Your task to perform on an android device: clear history in the chrome app Image 0: 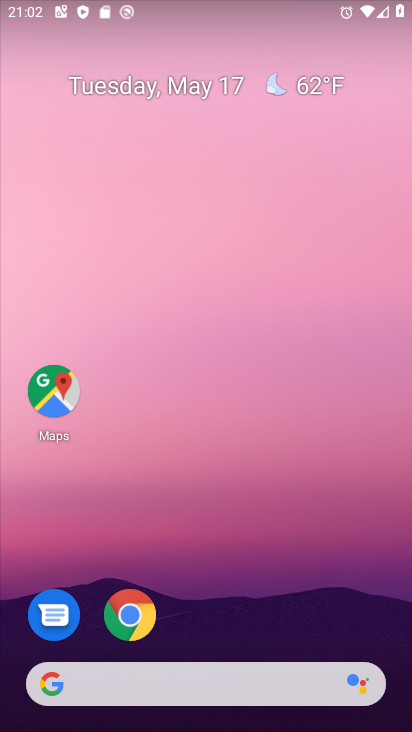
Step 0: click (124, 616)
Your task to perform on an android device: clear history in the chrome app Image 1: 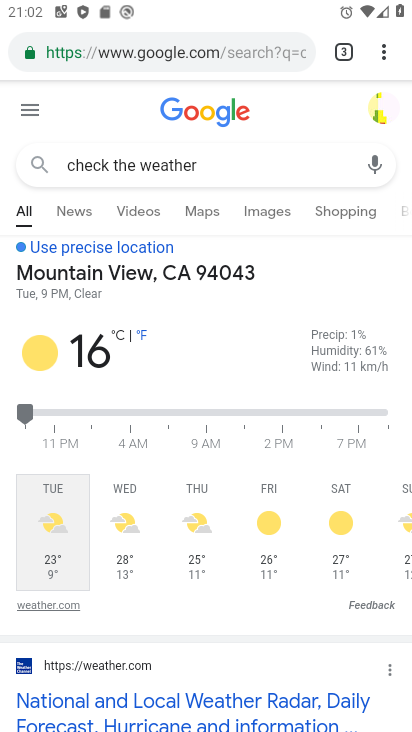
Step 1: drag from (388, 50) to (247, 303)
Your task to perform on an android device: clear history in the chrome app Image 2: 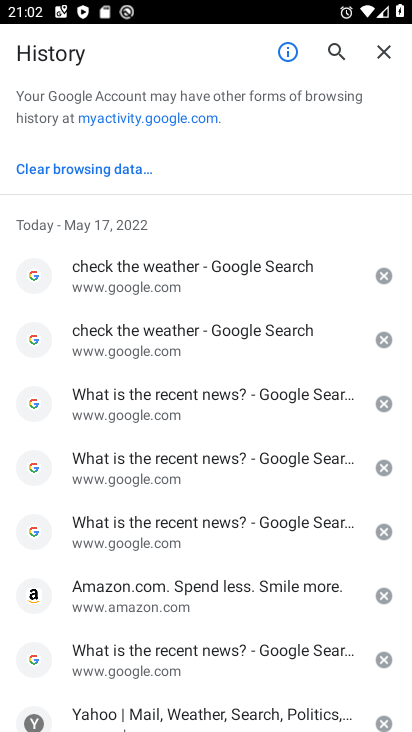
Step 2: click (46, 281)
Your task to perform on an android device: clear history in the chrome app Image 3: 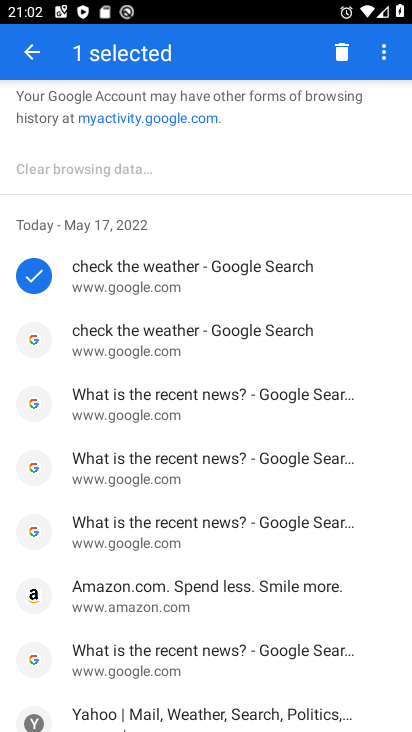
Step 3: click (37, 338)
Your task to perform on an android device: clear history in the chrome app Image 4: 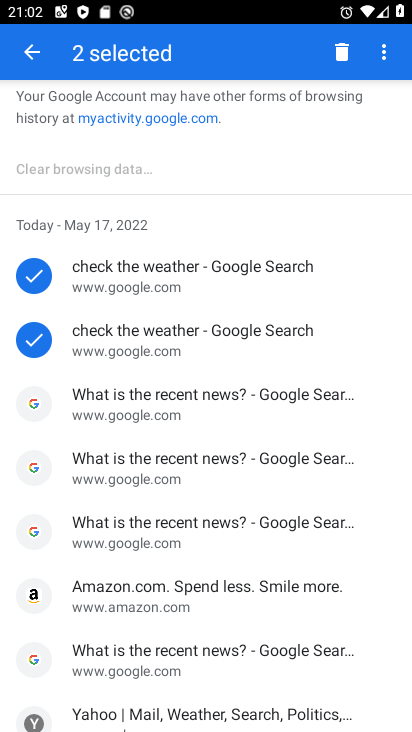
Step 4: click (37, 408)
Your task to perform on an android device: clear history in the chrome app Image 5: 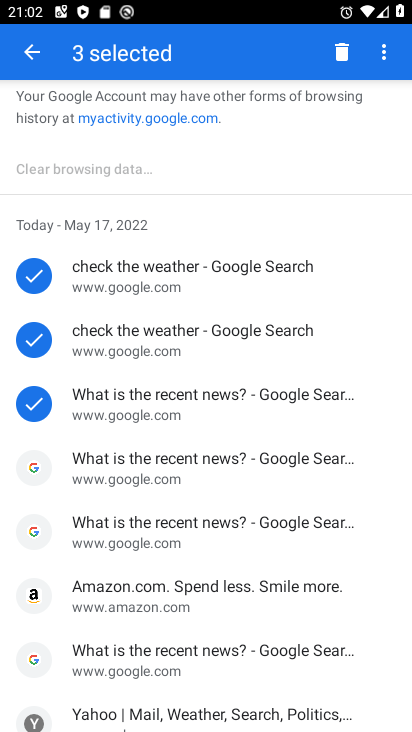
Step 5: click (37, 473)
Your task to perform on an android device: clear history in the chrome app Image 6: 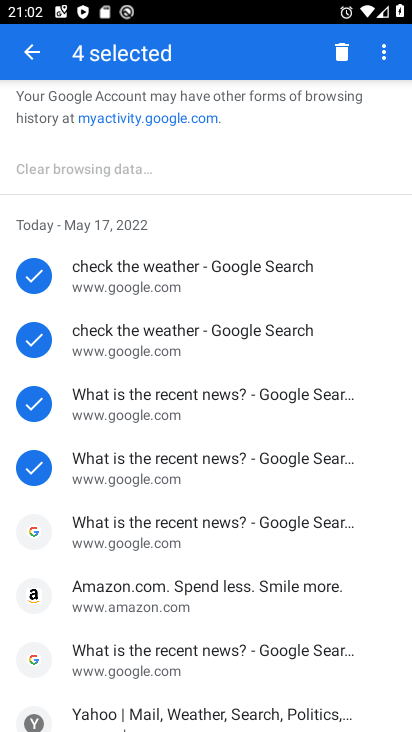
Step 6: click (30, 532)
Your task to perform on an android device: clear history in the chrome app Image 7: 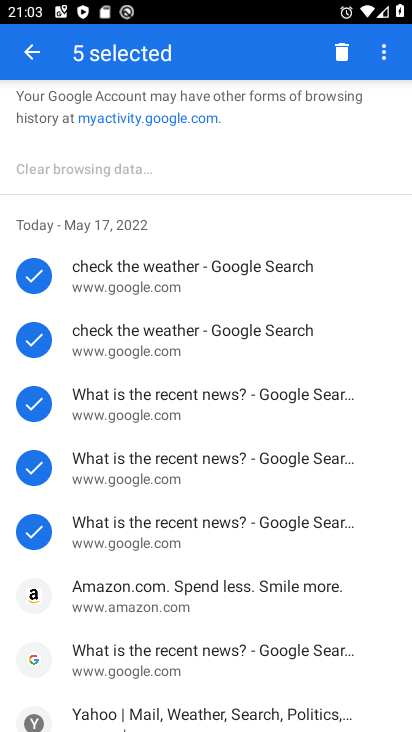
Step 7: click (33, 595)
Your task to perform on an android device: clear history in the chrome app Image 8: 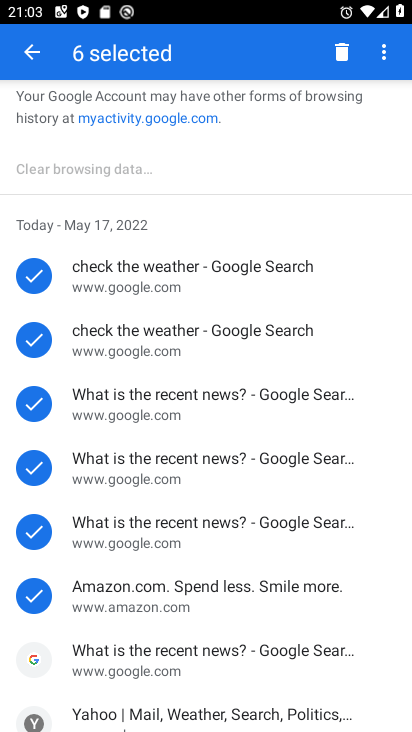
Step 8: click (33, 654)
Your task to perform on an android device: clear history in the chrome app Image 9: 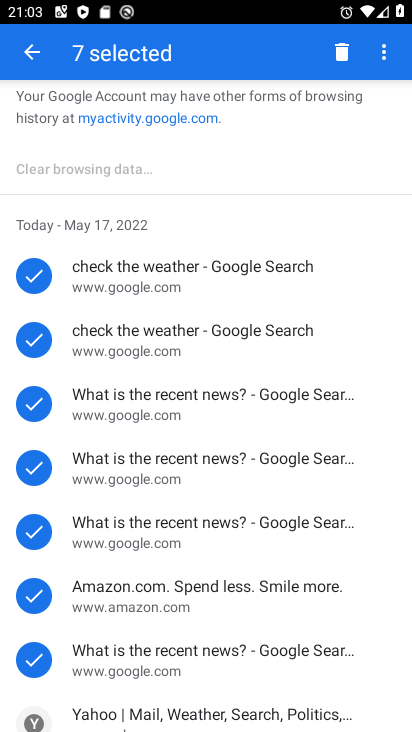
Step 9: click (32, 718)
Your task to perform on an android device: clear history in the chrome app Image 10: 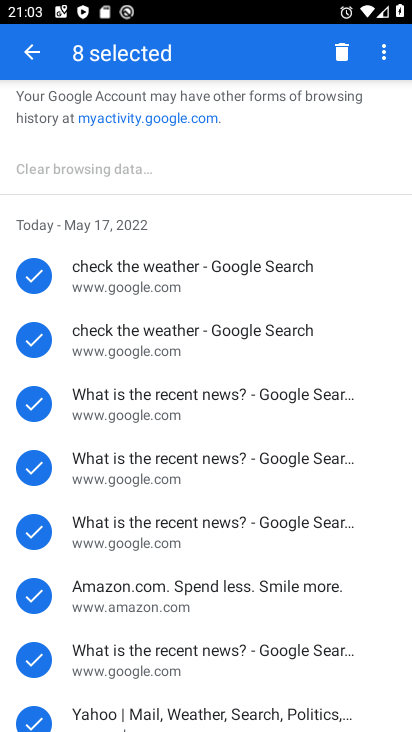
Step 10: drag from (243, 655) to (277, 254)
Your task to perform on an android device: clear history in the chrome app Image 11: 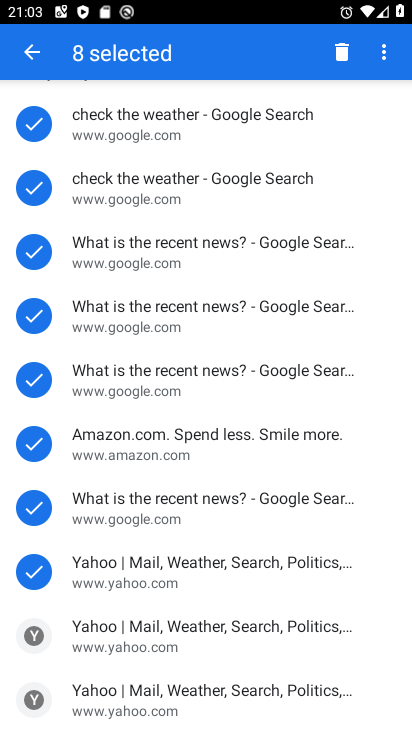
Step 11: click (37, 630)
Your task to perform on an android device: clear history in the chrome app Image 12: 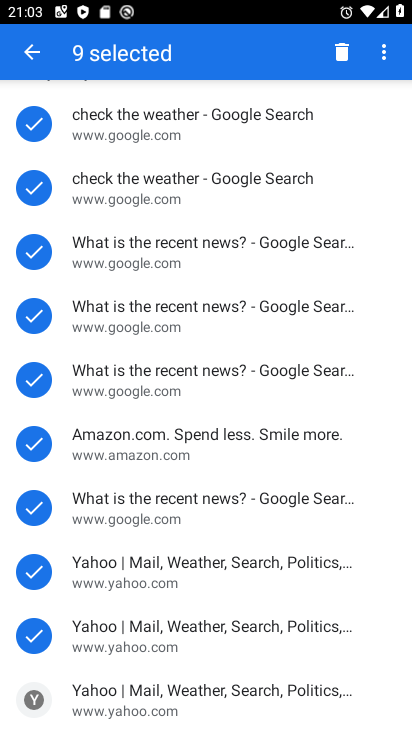
Step 12: click (35, 705)
Your task to perform on an android device: clear history in the chrome app Image 13: 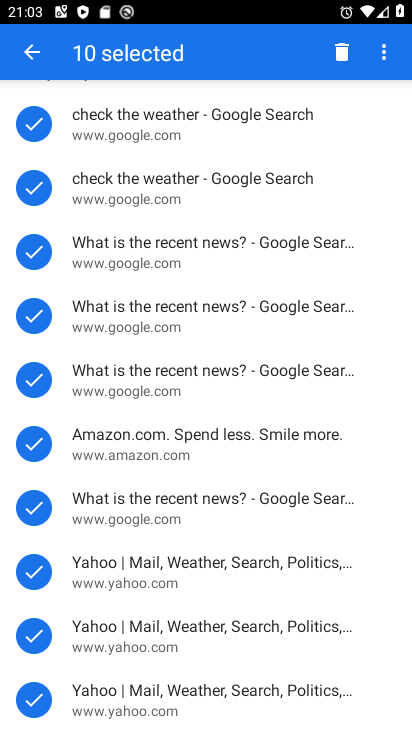
Step 13: drag from (164, 720) to (184, 201)
Your task to perform on an android device: clear history in the chrome app Image 14: 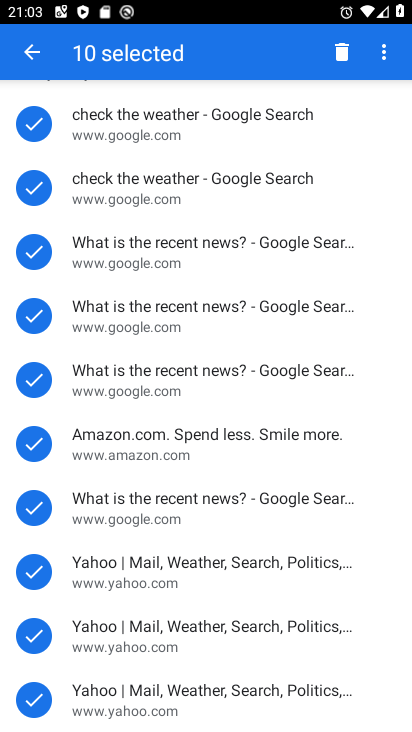
Step 14: click (340, 54)
Your task to perform on an android device: clear history in the chrome app Image 15: 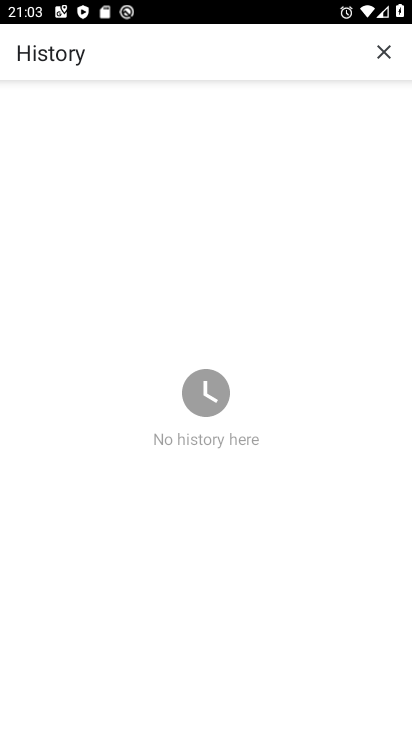
Step 15: task complete